Your task to perform on an android device: Show me recent news Image 0: 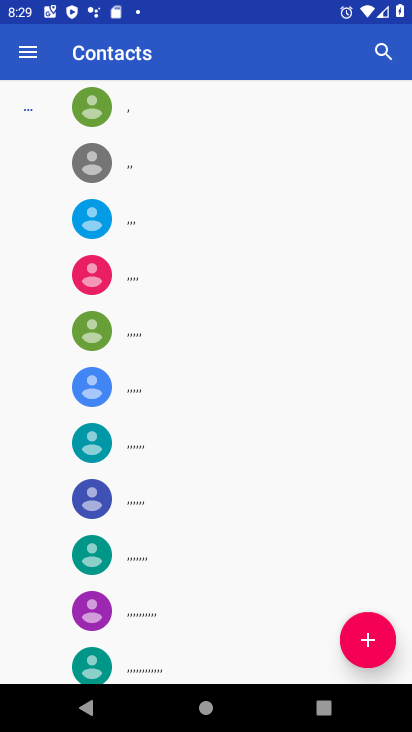
Step 0: press back button
Your task to perform on an android device: Show me recent news Image 1: 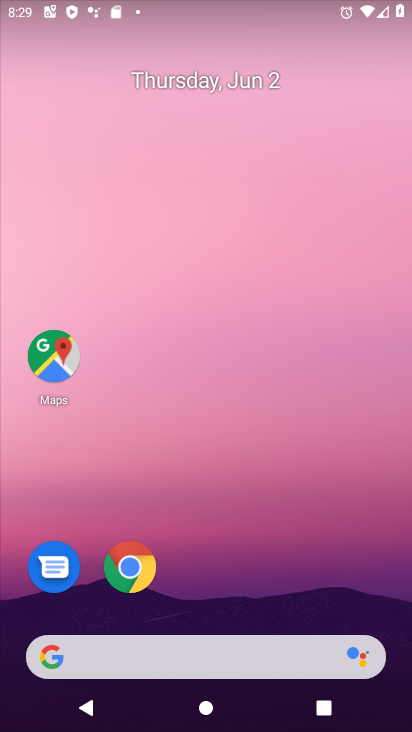
Step 1: drag from (225, 597) to (223, 86)
Your task to perform on an android device: Show me recent news Image 2: 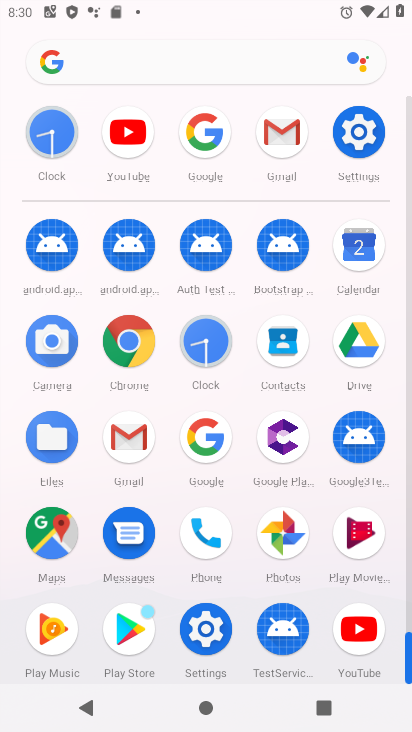
Step 2: click (199, 132)
Your task to perform on an android device: Show me recent news Image 3: 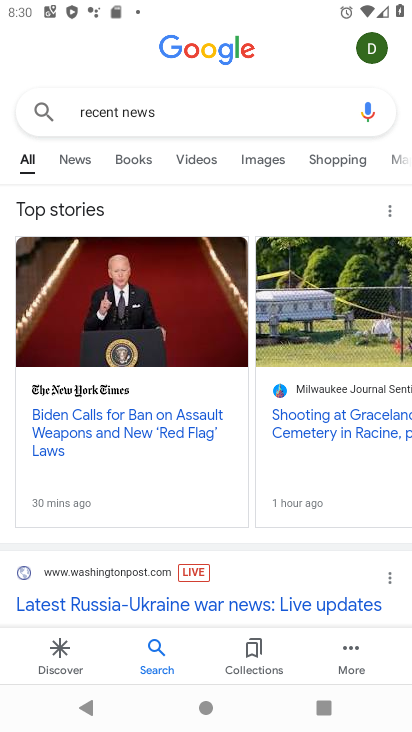
Step 3: click (134, 439)
Your task to perform on an android device: Show me recent news Image 4: 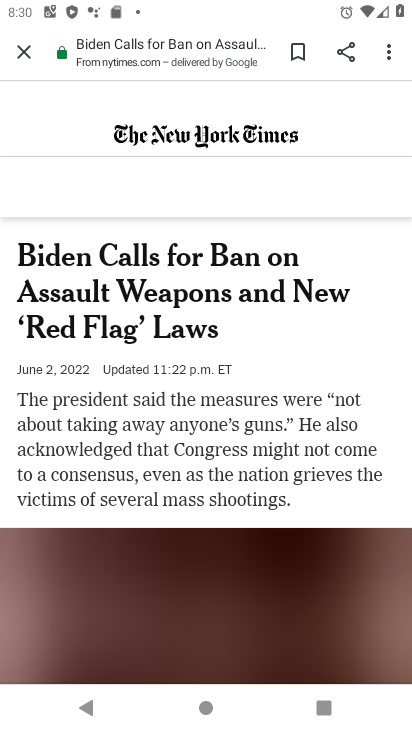
Step 4: task complete